Your task to perform on an android device: Open calendar and show me the first week of next month Image 0: 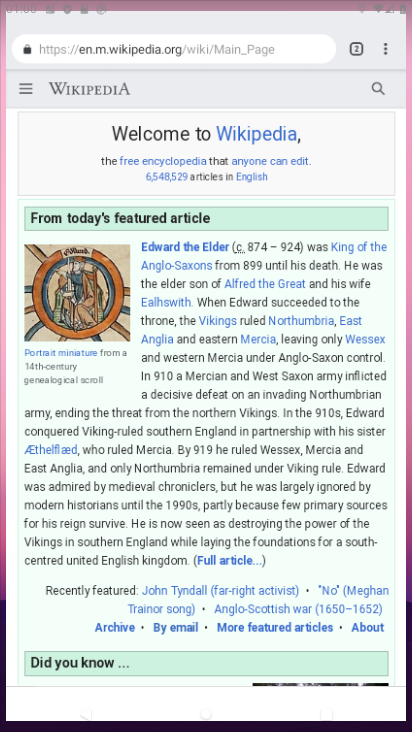
Step 0: drag from (207, 652) to (134, 23)
Your task to perform on an android device: Open calendar and show me the first week of next month Image 1: 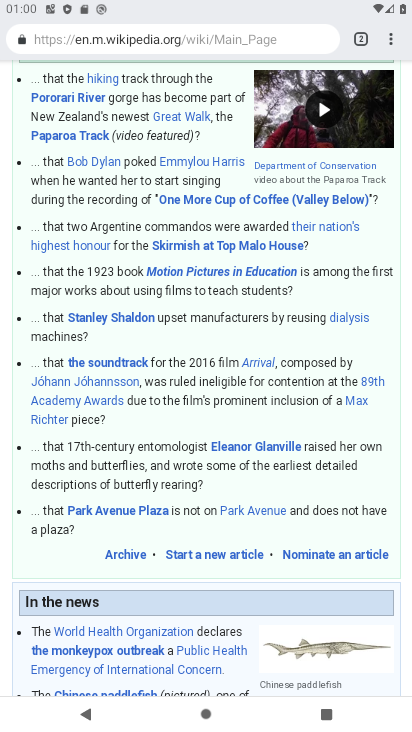
Step 1: press home button
Your task to perform on an android device: Open calendar and show me the first week of next month Image 2: 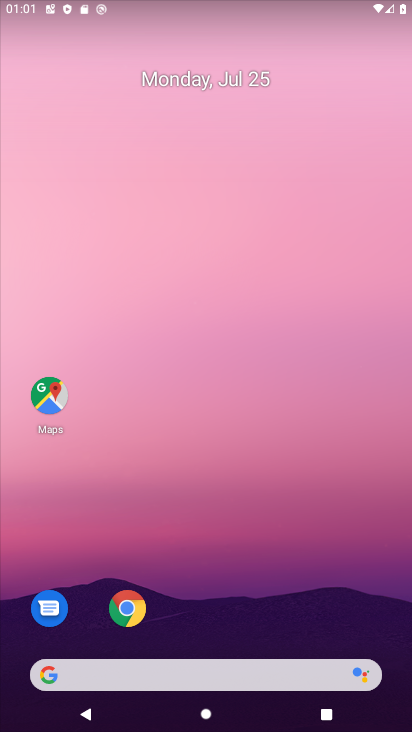
Step 2: drag from (233, 640) to (240, 12)
Your task to perform on an android device: Open calendar and show me the first week of next month Image 3: 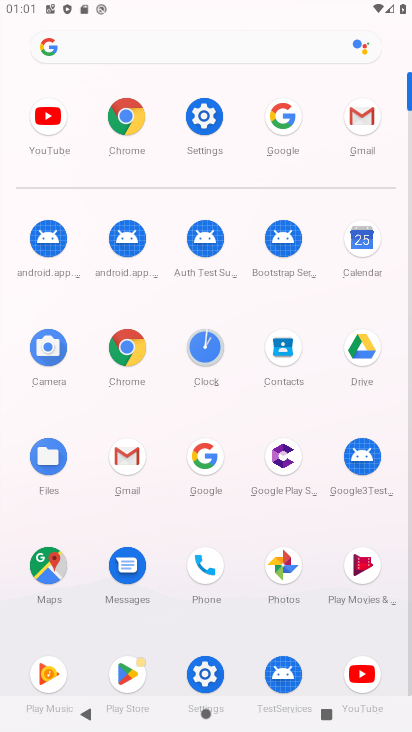
Step 3: click (355, 238)
Your task to perform on an android device: Open calendar and show me the first week of next month Image 4: 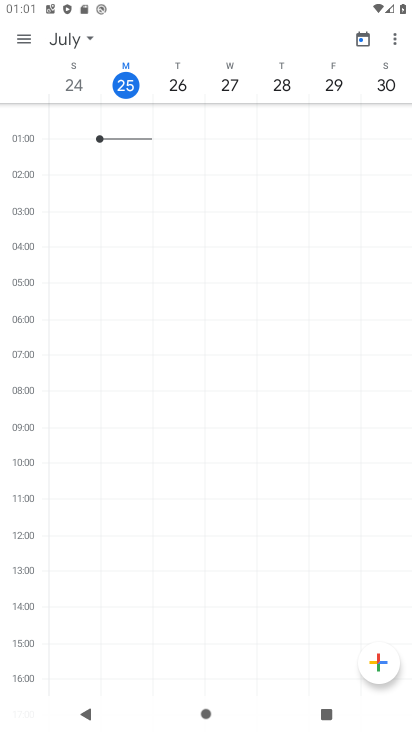
Step 4: click (23, 29)
Your task to perform on an android device: Open calendar and show me the first week of next month Image 5: 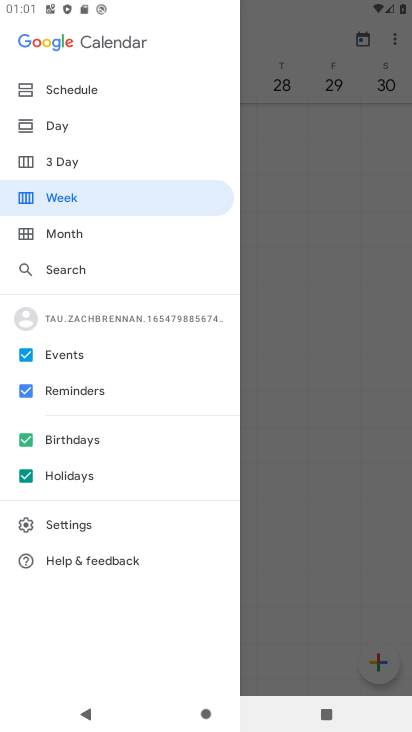
Step 5: click (98, 201)
Your task to perform on an android device: Open calendar and show me the first week of next month Image 6: 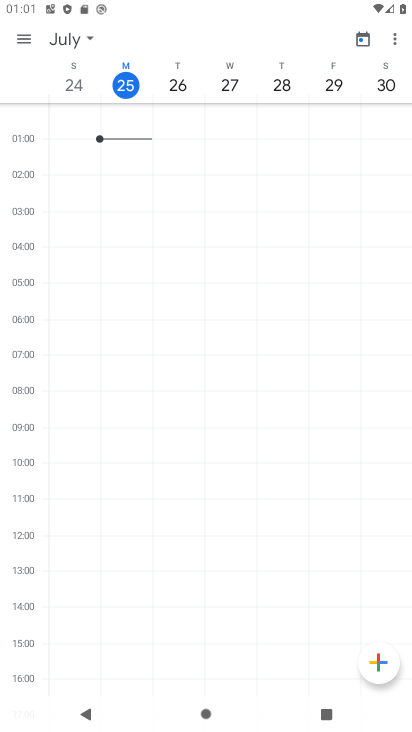
Step 6: task complete